Your task to perform on an android device: delete the emails in spam in the gmail app Image 0: 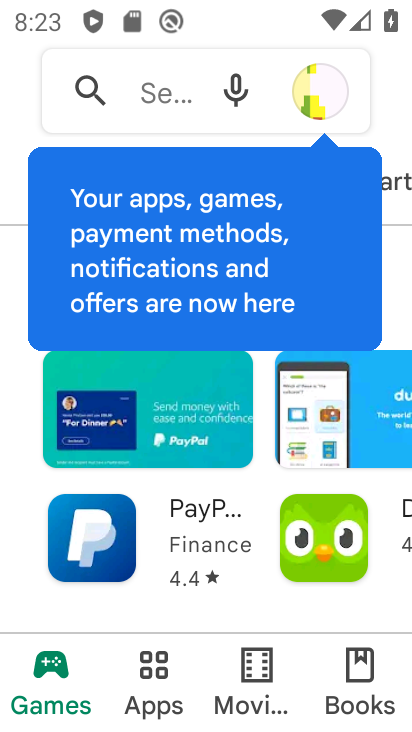
Step 0: press home button
Your task to perform on an android device: delete the emails in spam in the gmail app Image 1: 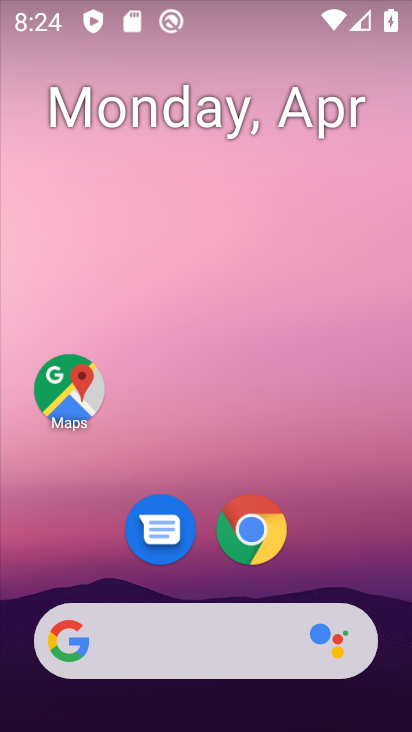
Step 1: drag from (350, 531) to (352, 127)
Your task to perform on an android device: delete the emails in spam in the gmail app Image 2: 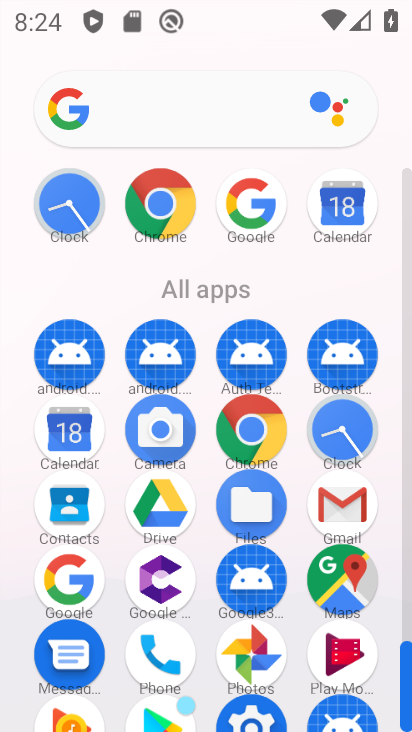
Step 2: click (347, 504)
Your task to perform on an android device: delete the emails in spam in the gmail app Image 3: 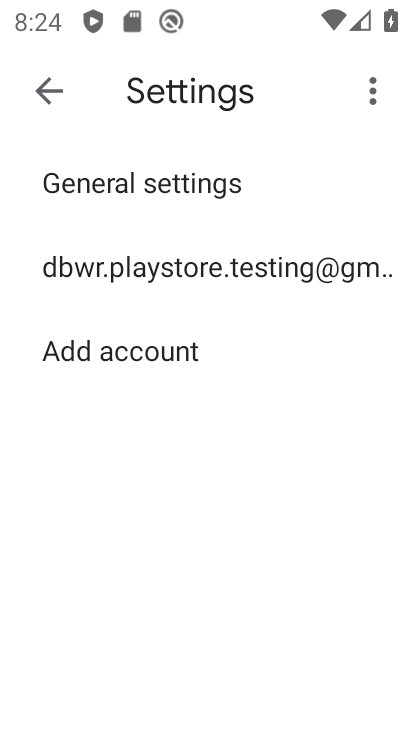
Step 3: click (246, 260)
Your task to perform on an android device: delete the emails in spam in the gmail app Image 4: 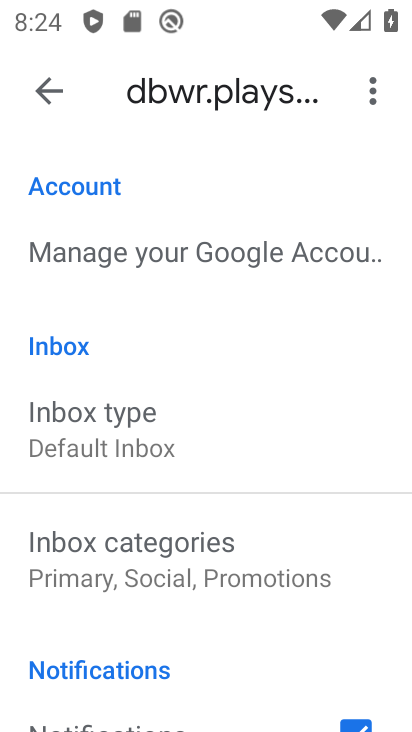
Step 4: click (57, 88)
Your task to perform on an android device: delete the emails in spam in the gmail app Image 5: 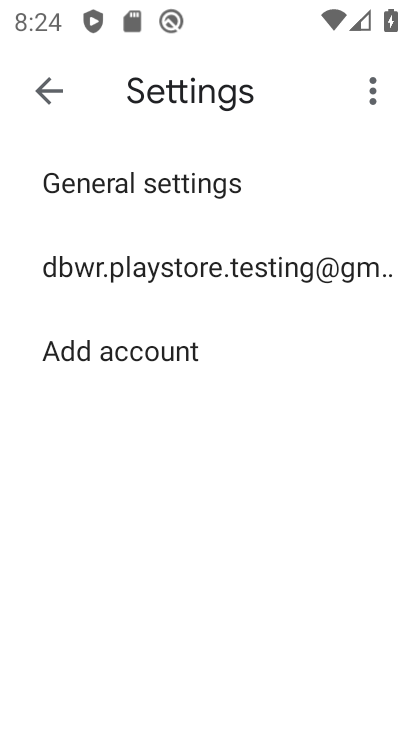
Step 5: click (54, 86)
Your task to perform on an android device: delete the emails in spam in the gmail app Image 6: 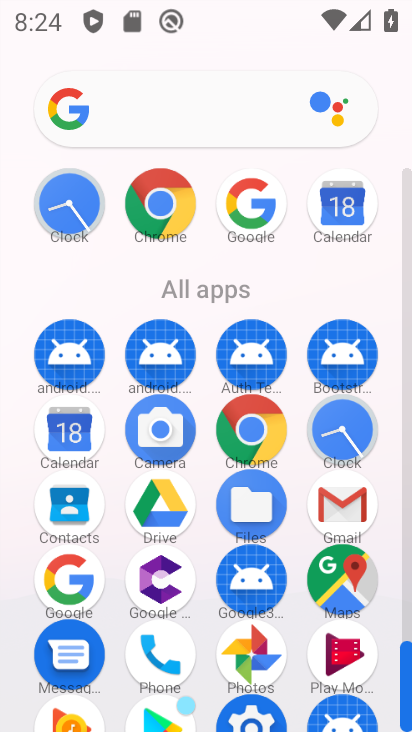
Step 6: click (333, 512)
Your task to perform on an android device: delete the emails in spam in the gmail app Image 7: 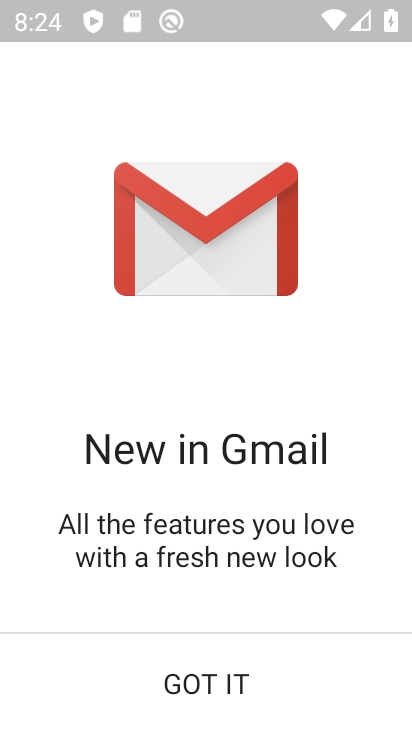
Step 7: click (172, 691)
Your task to perform on an android device: delete the emails in spam in the gmail app Image 8: 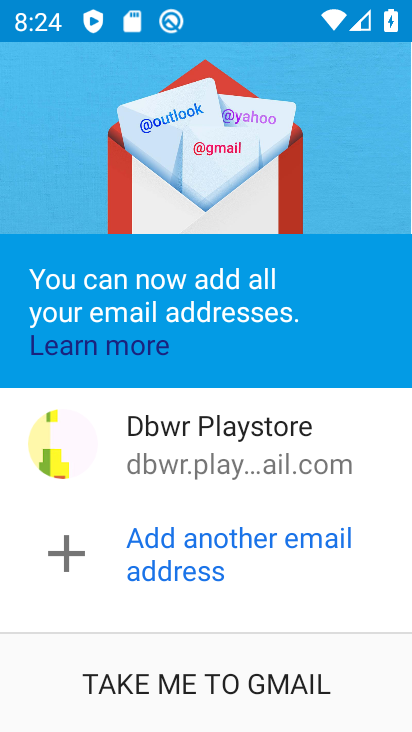
Step 8: click (174, 684)
Your task to perform on an android device: delete the emails in spam in the gmail app Image 9: 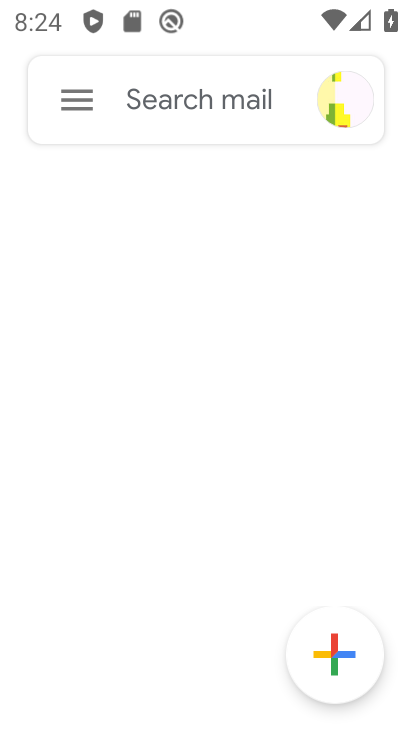
Step 9: click (72, 103)
Your task to perform on an android device: delete the emails in spam in the gmail app Image 10: 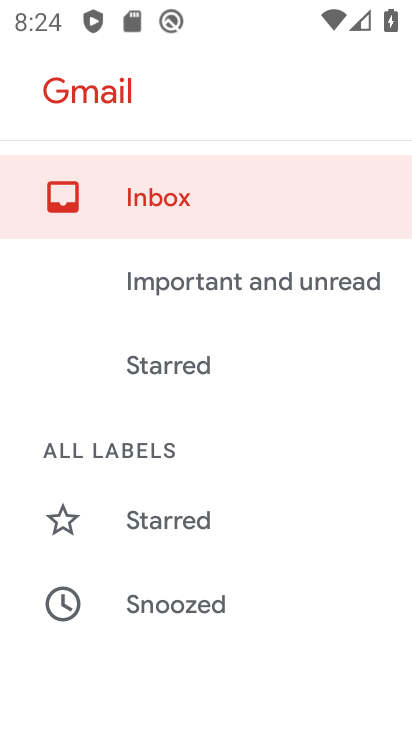
Step 10: drag from (255, 650) to (283, 238)
Your task to perform on an android device: delete the emails in spam in the gmail app Image 11: 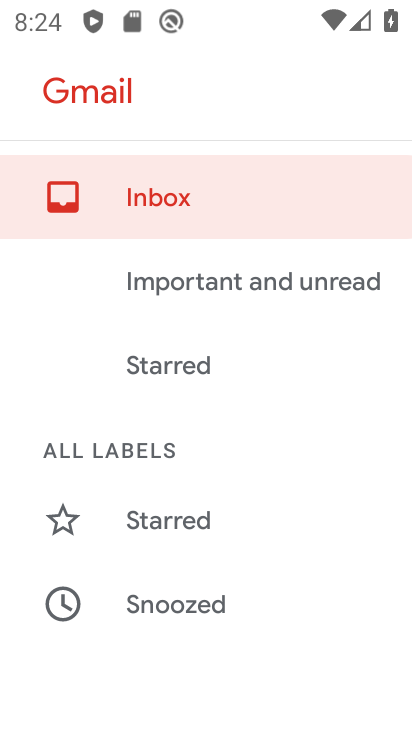
Step 11: drag from (277, 611) to (270, 235)
Your task to perform on an android device: delete the emails in spam in the gmail app Image 12: 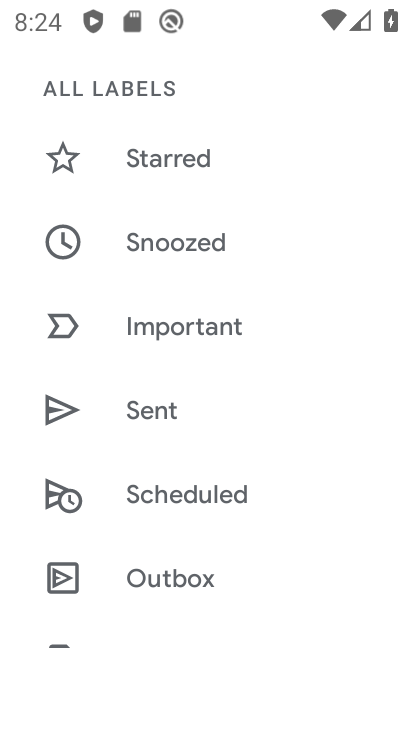
Step 12: drag from (256, 550) to (294, 183)
Your task to perform on an android device: delete the emails in spam in the gmail app Image 13: 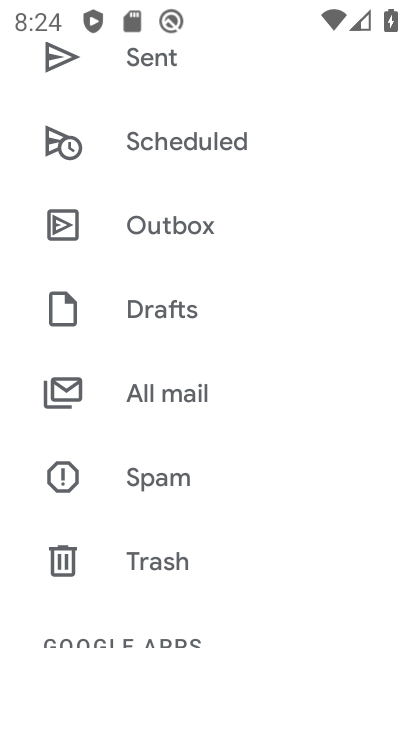
Step 13: click (159, 475)
Your task to perform on an android device: delete the emails in spam in the gmail app Image 14: 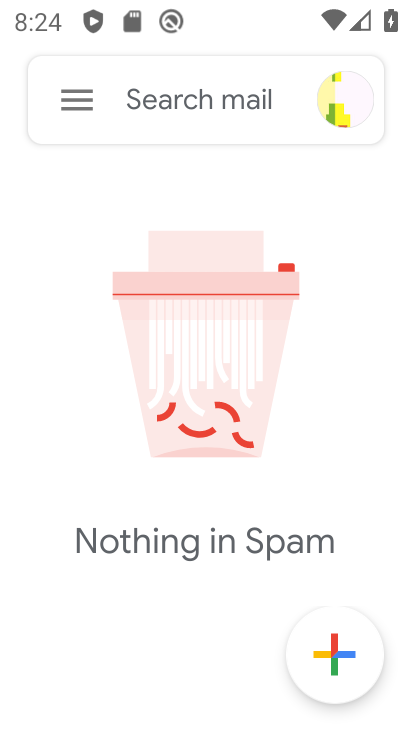
Step 14: task complete